Your task to perform on an android device: allow notifications from all sites in the chrome app Image 0: 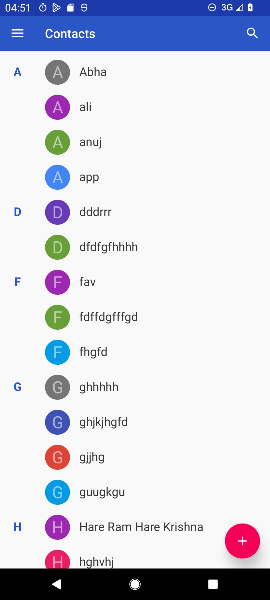
Step 0: press home button
Your task to perform on an android device: allow notifications from all sites in the chrome app Image 1: 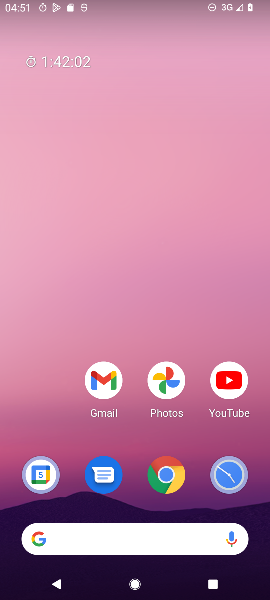
Step 1: drag from (56, 420) to (46, 177)
Your task to perform on an android device: allow notifications from all sites in the chrome app Image 2: 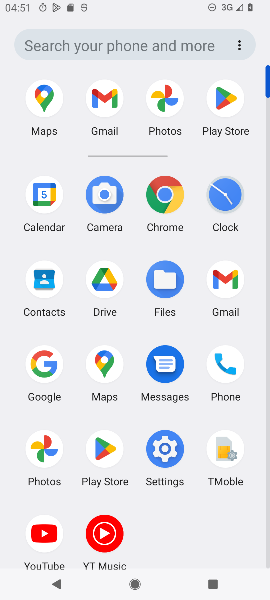
Step 2: click (158, 190)
Your task to perform on an android device: allow notifications from all sites in the chrome app Image 3: 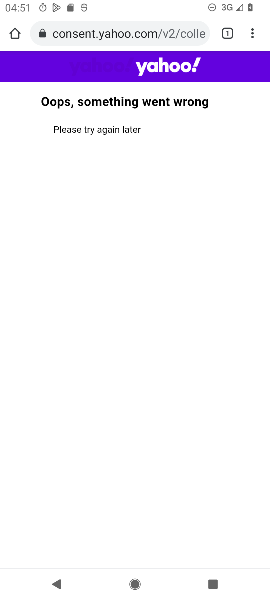
Step 3: click (253, 36)
Your task to perform on an android device: allow notifications from all sites in the chrome app Image 4: 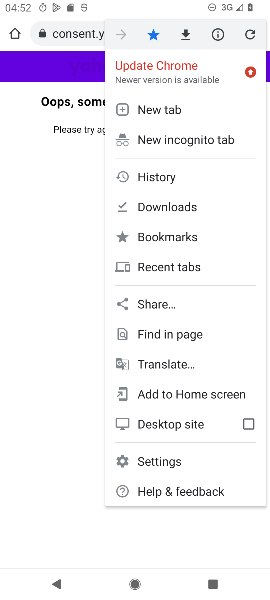
Step 4: click (179, 469)
Your task to perform on an android device: allow notifications from all sites in the chrome app Image 5: 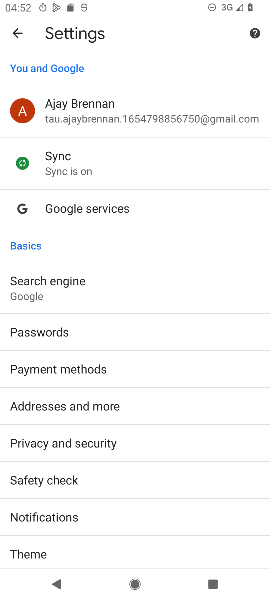
Step 5: drag from (175, 473) to (188, 418)
Your task to perform on an android device: allow notifications from all sites in the chrome app Image 6: 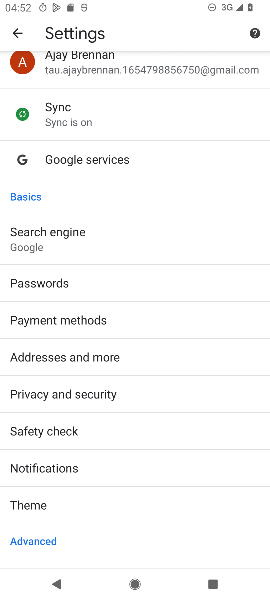
Step 6: drag from (184, 471) to (194, 412)
Your task to perform on an android device: allow notifications from all sites in the chrome app Image 7: 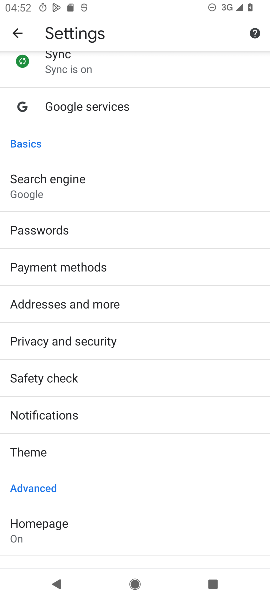
Step 7: drag from (189, 457) to (200, 384)
Your task to perform on an android device: allow notifications from all sites in the chrome app Image 8: 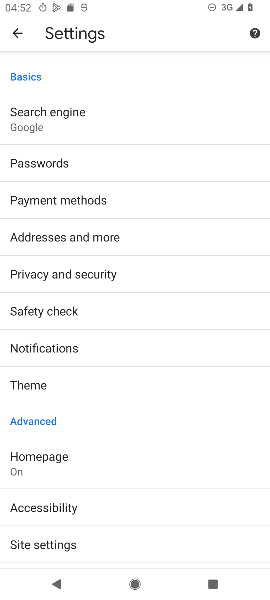
Step 8: drag from (191, 422) to (192, 350)
Your task to perform on an android device: allow notifications from all sites in the chrome app Image 9: 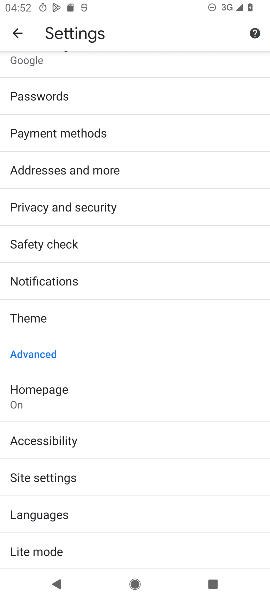
Step 9: click (195, 481)
Your task to perform on an android device: allow notifications from all sites in the chrome app Image 10: 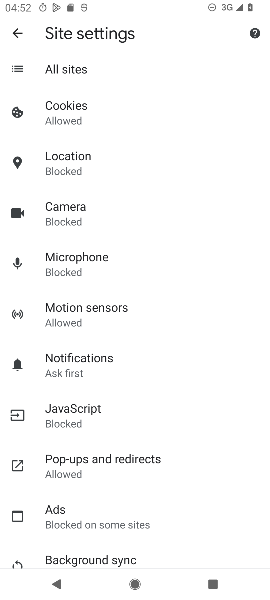
Step 10: drag from (215, 450) to (218, 390)
Your task to perform on an android device: allow notifications from all sites in the chrome app Image 11: 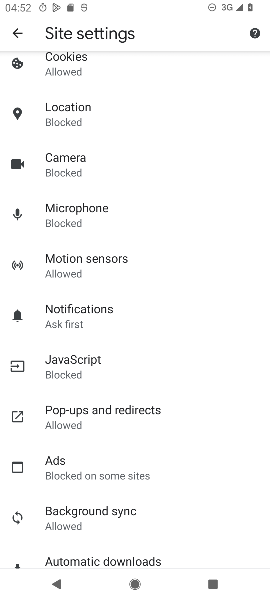
Step 11: drag from (197, 458) to (203, 405)
Your task to perform on an android device: allow notifications from all sites in the chrome app Image 12: 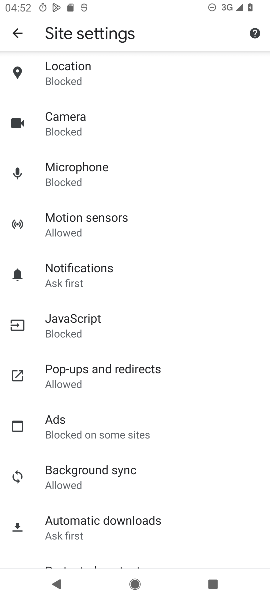
Step 12: drag from (204, 466) to (207, 407)
Your task to perform on an android device: allow notifications from all sites in the chrome app Image 13: 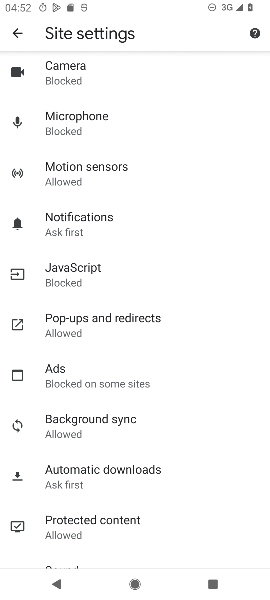
Step 13: click (130, 225)
Your task to perform on an android device: allow notifications from all sites in the chrome app Image 14: 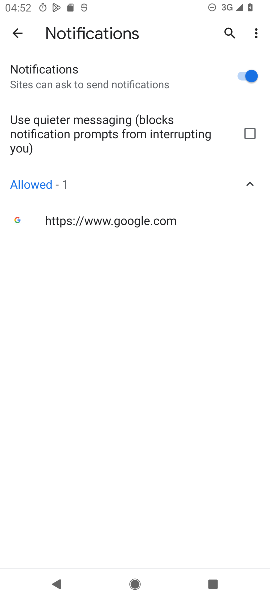
Step 14: task complete